Your task to perform on an android device: Open wifi settings Image 0: 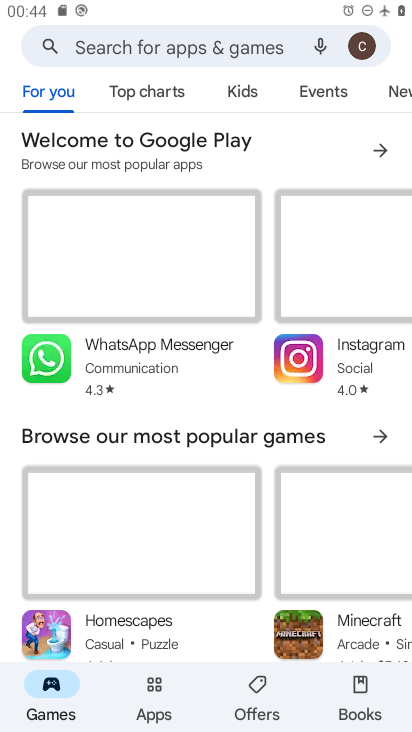
Step 0: press home button
Your task to perform on an android device: Open wifi settings Image 1: 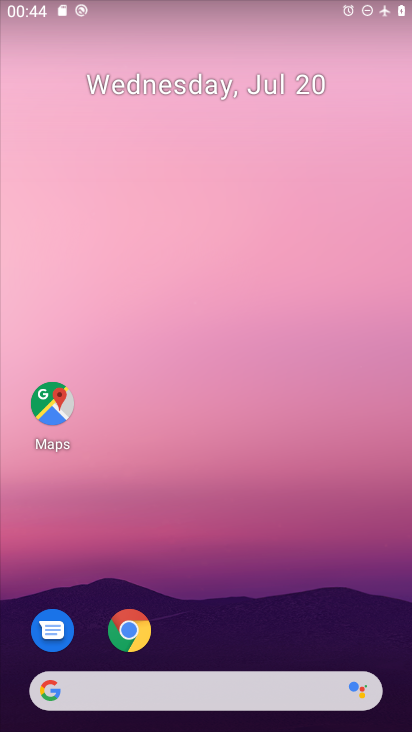
Step 1: drag from (210, 635) to (211, 105)
Your task to perform on an android device: Open wifi settings Image 2: 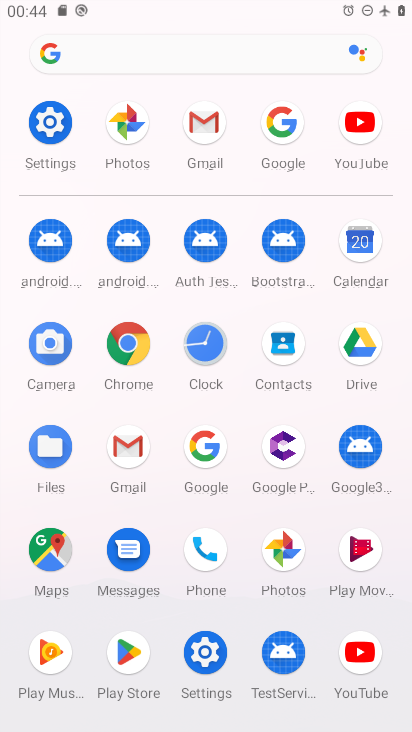
Step 2: click (44, 124)
Your task to perform on an android device: Open wifi settings Image 3: 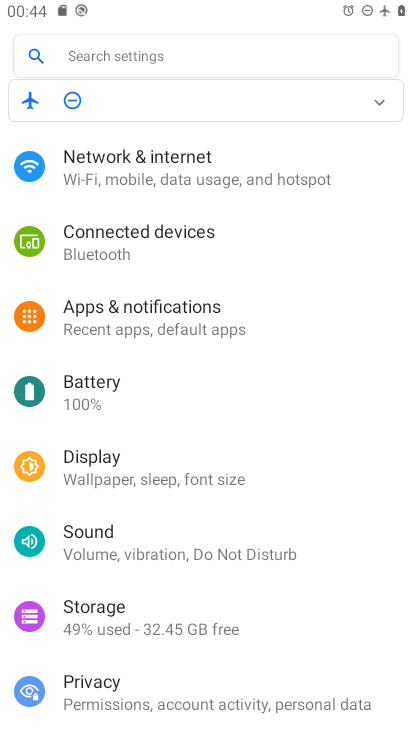
Step 3: click (108, 158)
Your task to perform on an android device: Open wifi settings Image 4: 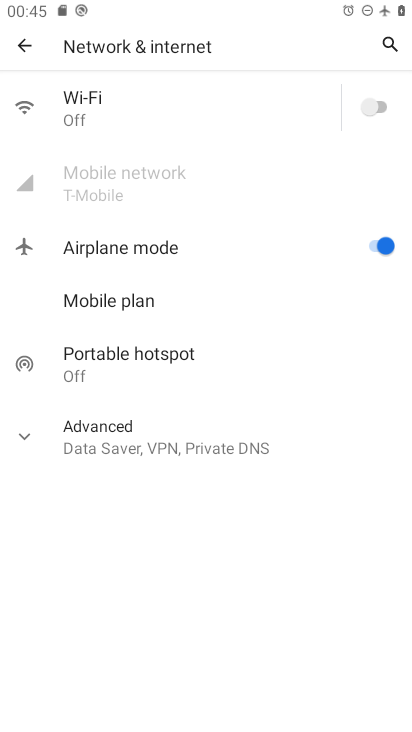
Step 4: click (109, 116)
Your task to perform on an android device: Open wifi settings Image 5: 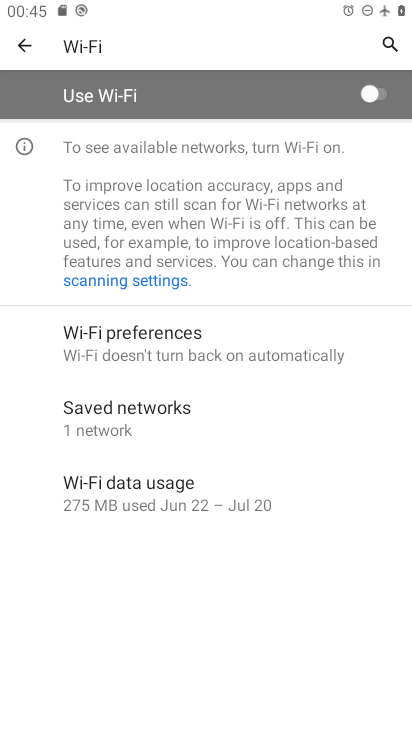
Step 5: task complete